Your task to perform on an android device: Open the map Image 0: 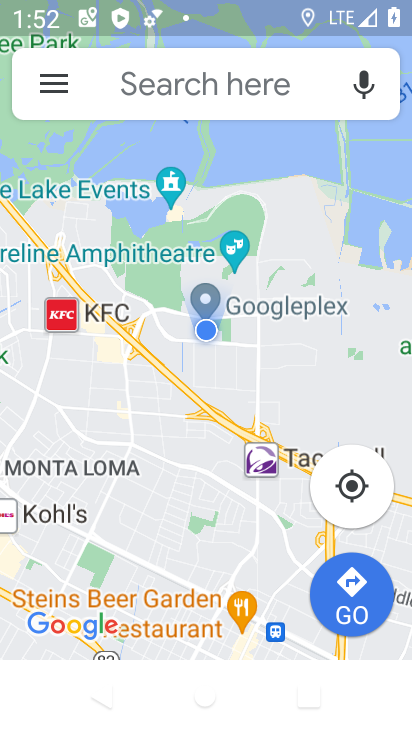
Step 0: click (193, 86)
Your task to perform on an android device: Open the map Image 1: 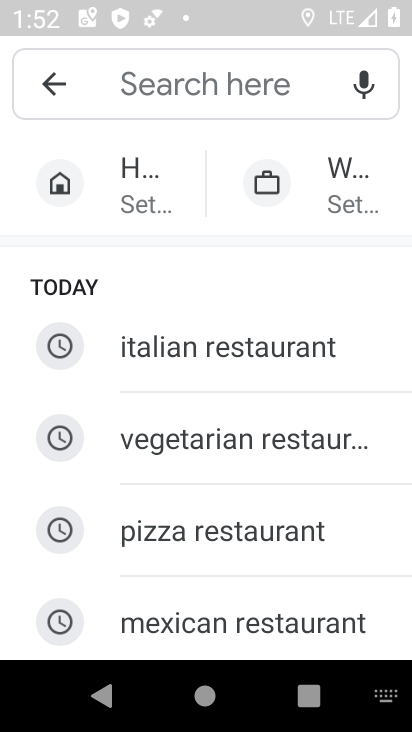
Step 1: click (116, 692)
Your task to perform on an android device: Open the map Image 2: 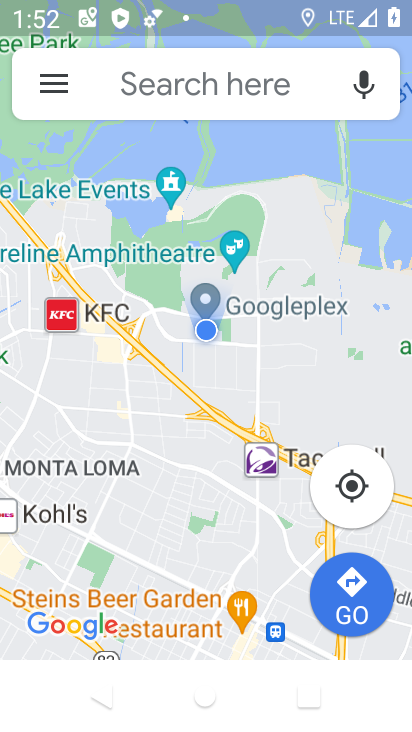
Step 2: click (116, 692)
Your task to perform on an android device: Open the map Image 3: 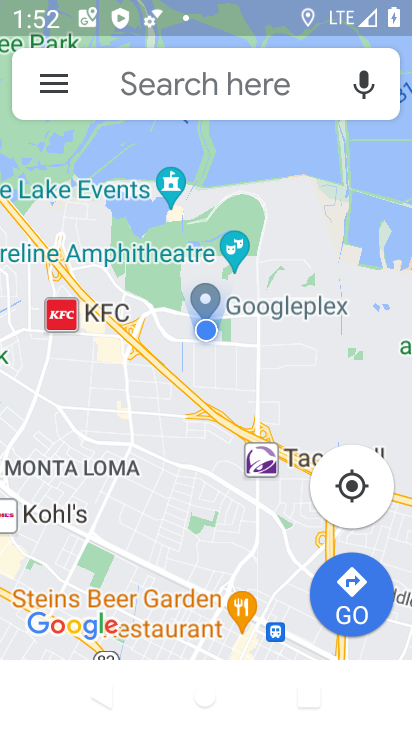
Step 3: task complete